Your task to perform on an android device: Turn off the flashlight Image 0: 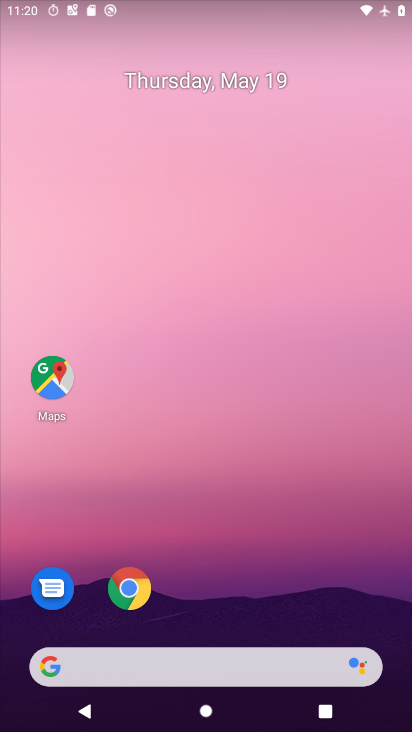
Step 0: press home button
Your task to perform on an android device: Turn off the flashlight Image 1: 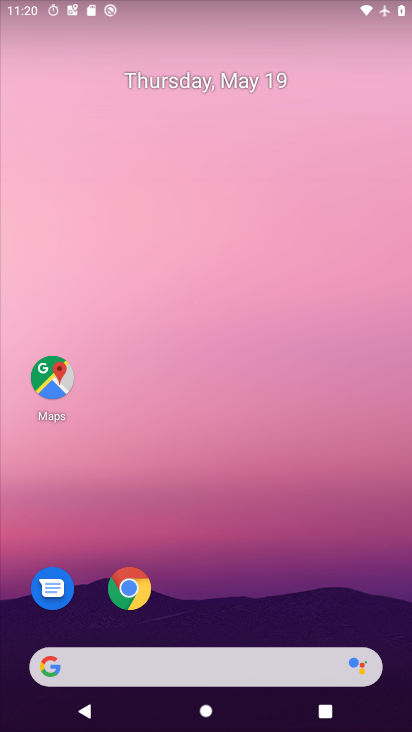
Step 1: task complete